Your task to perform on an android device: Clear the shopping cart on bestbuy. Add lg ultragear to the cart on bestbuy Image 0: 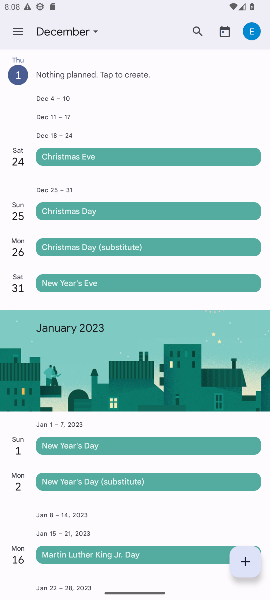
Step 0: press home button
Your task to perform on an android device: Clear the shopping cart on bestbuy. Add lg ultragear to the cart on bestbuy Image 1: 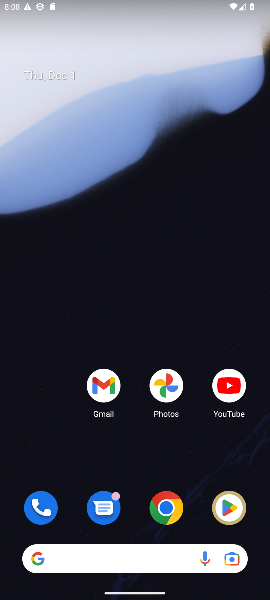
Step 1: click (178, 504)
Your task to perform on an android device: Clear the shopping cart on bestbuy. Add lg ultragear to the cart on bestbuy Image 2: 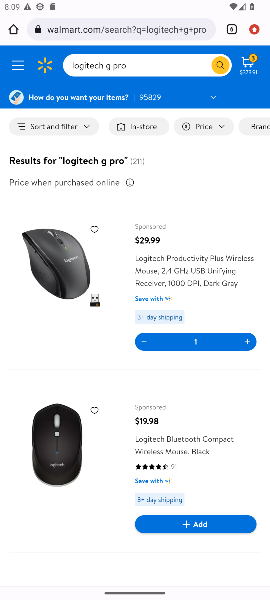
Step 2: click (232, 27)
Your task to perform on an android device: Clear the shopping cart on bestbuy. Add lg ultragear to the cart on bestbuy Image 3: 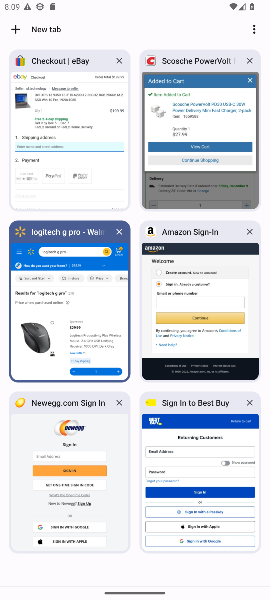
Step 3: click (170, 473)
Your task to perform on an android device: Clear the shopping cart on bestbuy. Add lg ultragear to the cart on bestbuy Image 4: 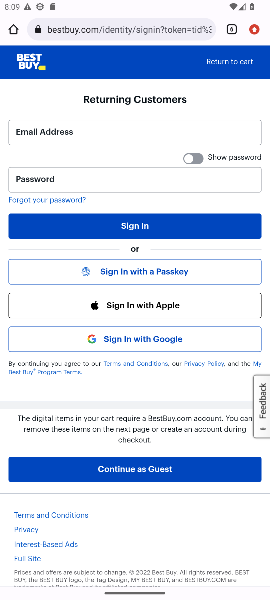
Step 4: click (218, 62)
Your task to perform on an android device: Clear the shopping cart on bestbuy. Add lg ultragear to the cart on bestbuy Image 5: 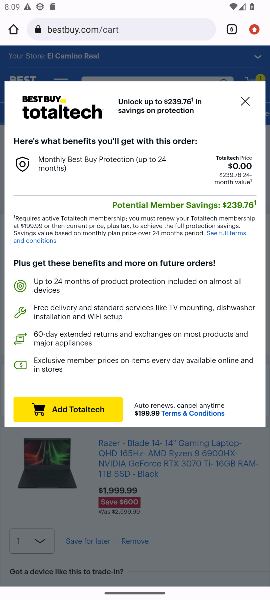
Step 5: click (241, 103)
Your task to perform on an android device: Clear the shopping cart on bestbuy. Add lg ultragear to the cart on bestbuy Image 6: 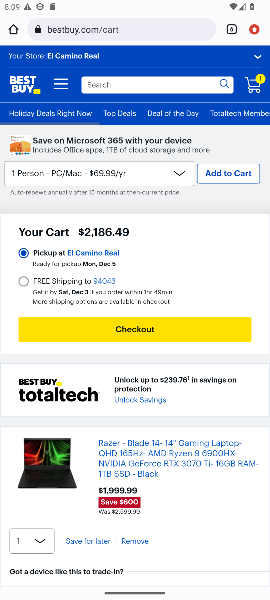
Step 6: click (129, 538)
Your task to perform on an android device: Clear the shopping cart on bestbuy. Add lg ultragear to the cart on bestbuy Image 7: 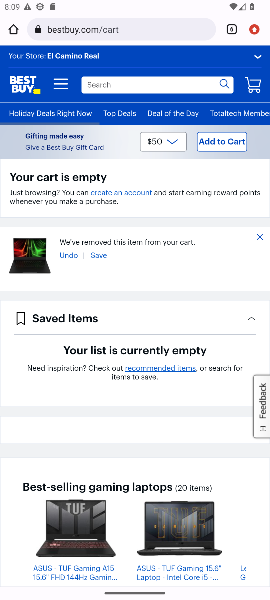
Step 7: click (121, 87)
Your task to perform on an android device: Clear the shopping cart on bestbuy. Add lg ultragear to the cart on bestbuy Image 8: 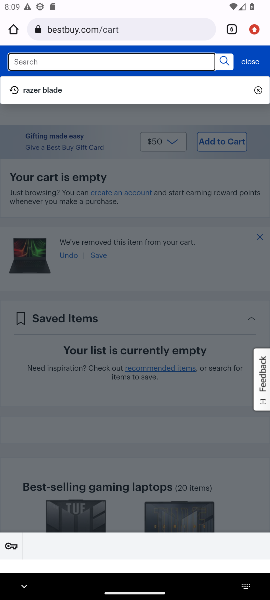
Step 8: type "lg ultragear"
Your task to perform on an android device: Clear the shopping cart on bestbuy. Add lg ultragear to the cart on bestbuy Image 9: 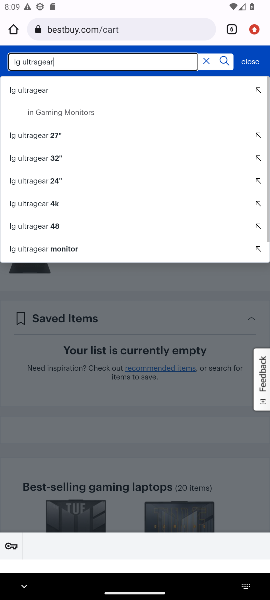
Step 9: click (224, 63)
Your task to perform on an android device: Clear the shopping cart on bestbuy. Add lg ultragear to the cart on bestbuy Image 10: 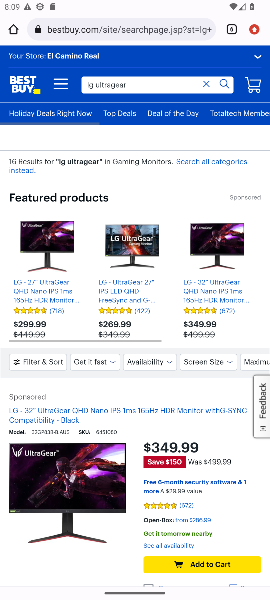
Step 10: drag from (63, 531) to (73, 332)
Your task to perform on an android device: Clear the shopping cart on bestbuy. Add lg ultragear to the cart on bestbuy Image 11: 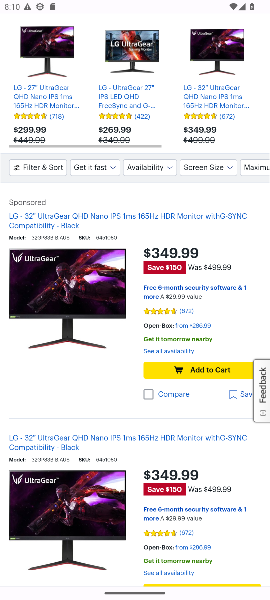
Step 11: click (209, 374)
Your task to perform on an android device: Clear the shopping cart on bestbuy. Add lg ultragear to the cart on bestbuy Image 12: 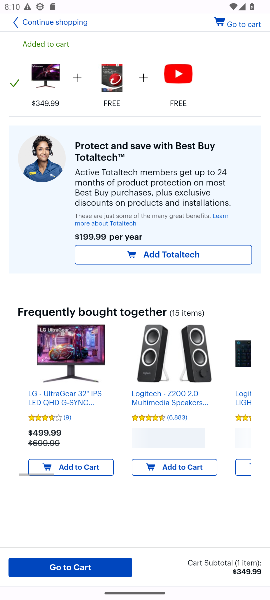
Step 12: task complete